Your task to perform on an android device: Find coffee shops on Maps Image 0: 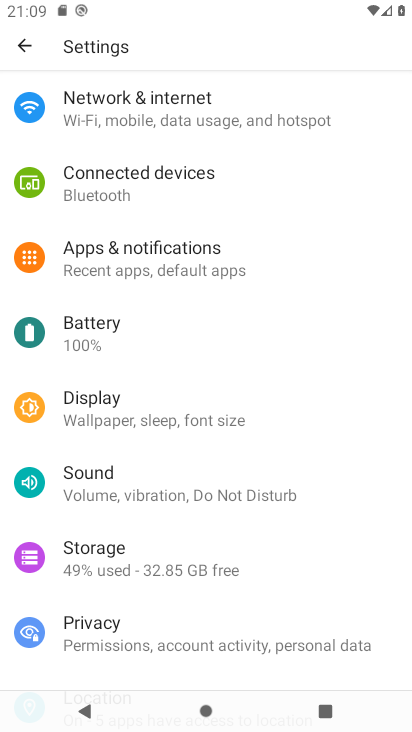
Step 0: press home button
Your task to perform on an android device: Find coffee shops on Maps Image 1: 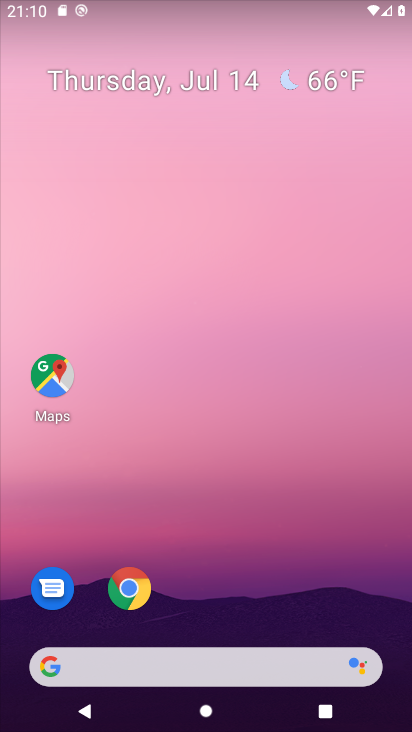
Step 1: drag from (347, 588) to (354, 58)
Your task to perform on an android device: Find coffee shops on Maps Image 2: 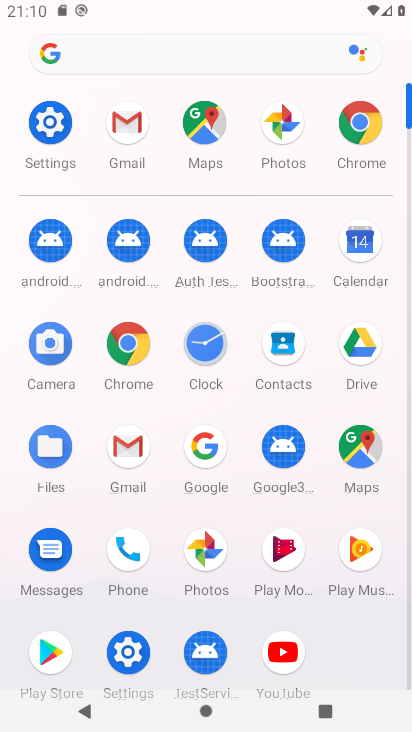
Step 2: click (367, 451)
Your task to perform on an android device: Find coffee shops on Maps Image 3: 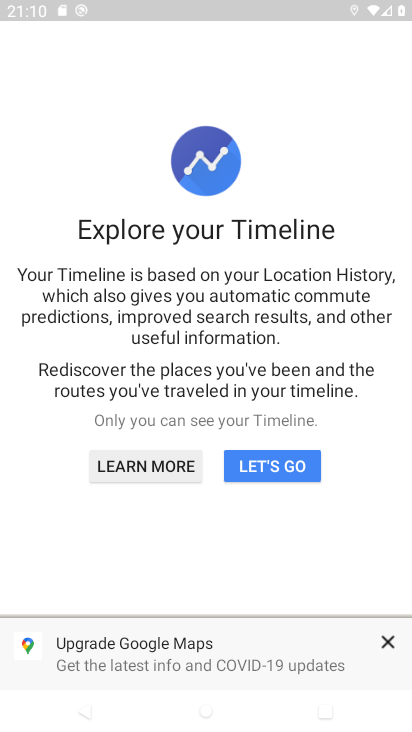
Step 3: press back button
Your task to perform on an android device: Find coffee shops on Maps Image 4: 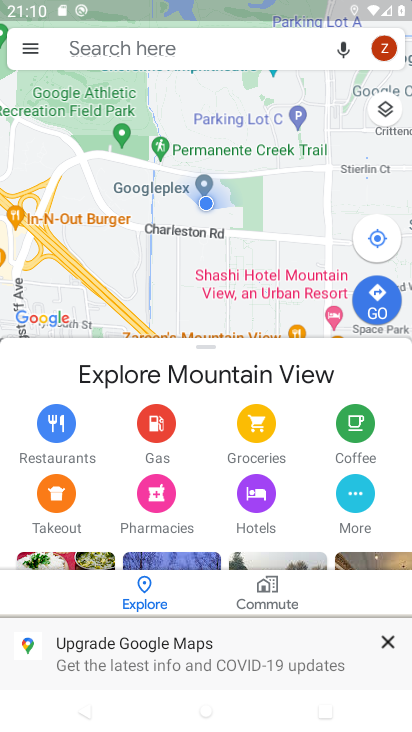
Step 4: click (222, 51)
Your task to perform on an android device: Find coffee shops on Maps Image 5: 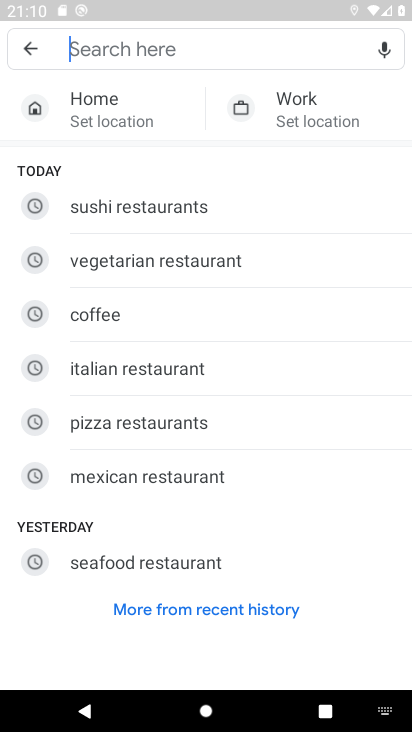
Step 5: type "coffee shops"
Your task to perform on an android device: Find coffee shops on Maps Image 6: 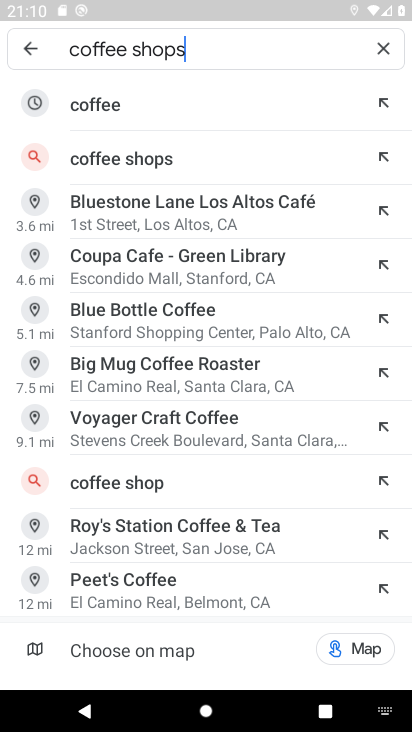
Step 6: click (286, 161)
Your task to perform on an android device: Find coffee shops on Maps Image 7: 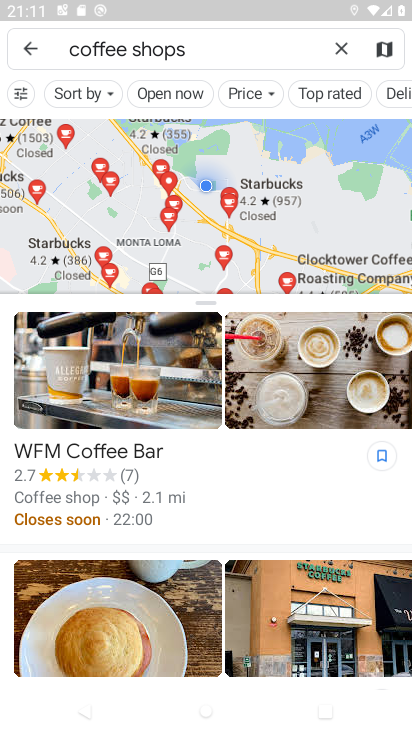
Step 7: task complete